Your task to perform on an android device: find photos in the google photos app Image 0: 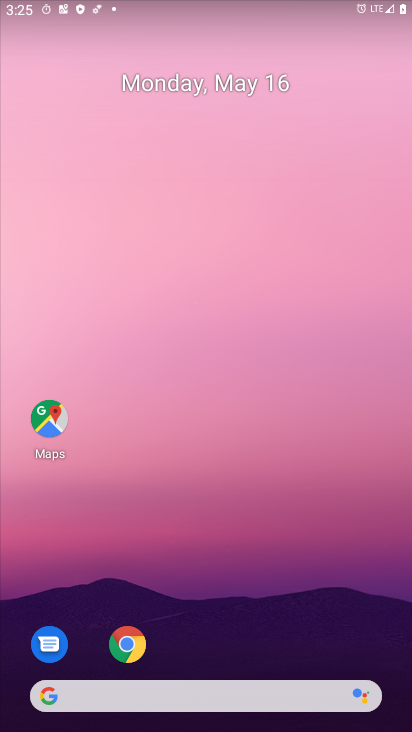
Step 0: drag from (197, 694) to (203, 286)
Your task to perform on an android device: find photos in the google photos app Image 1: 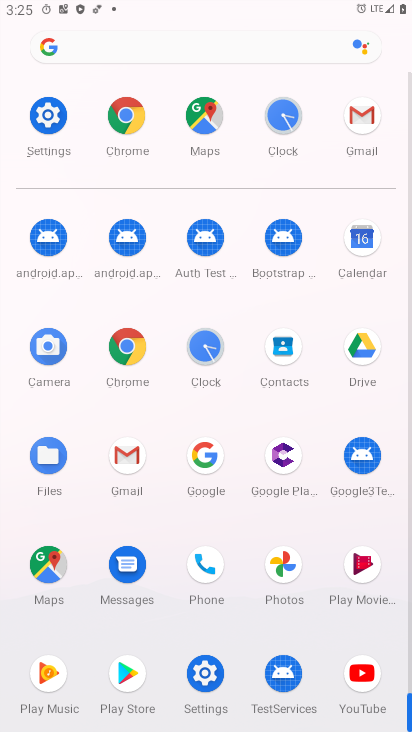
Step 1: click (307, 568)
Your task to perform on an android device: find photos in the google photos app Image 2: 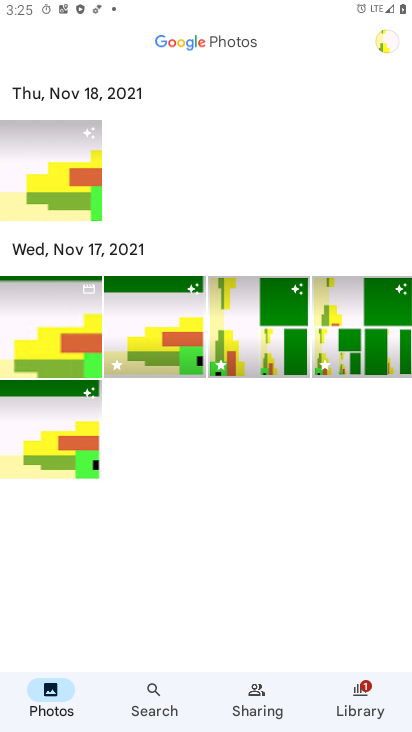
Step 2: task complete